Your task to perform on an android device: Go to Google maps Image 0: 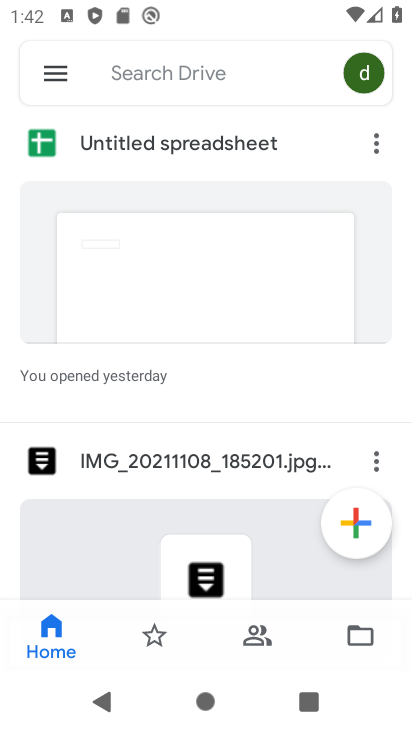
Step 0: press home button
Your task to perform on an android device: Go to Google maps Image 1: 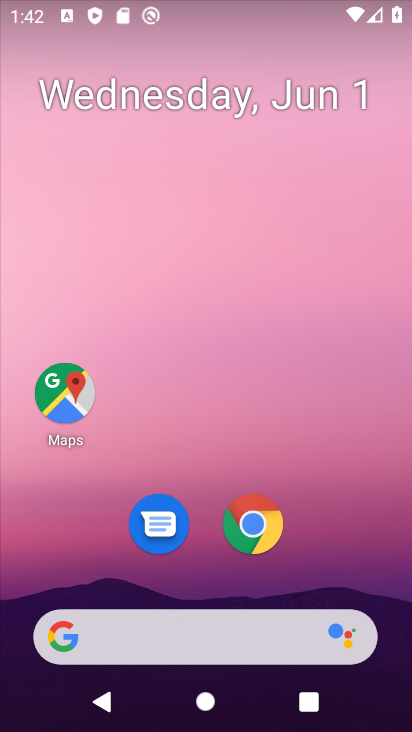
Step 1: click (66, 392)
Your task to perform on an android device: Go to Google maps Image 2: 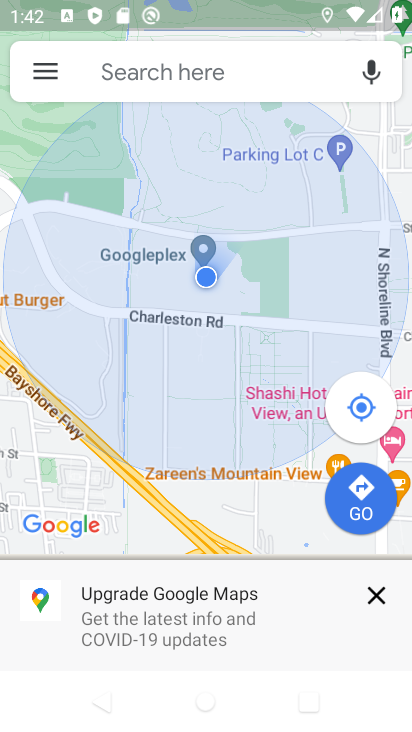
Step 2: task complete